Your task to perform on an android device: See recent photos Image 0: 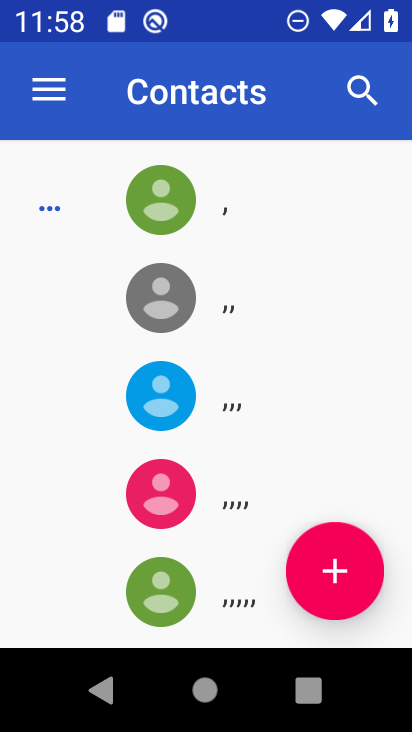
Step 0: press home button
Your task to perform on an android device: See recent photos Image 1: 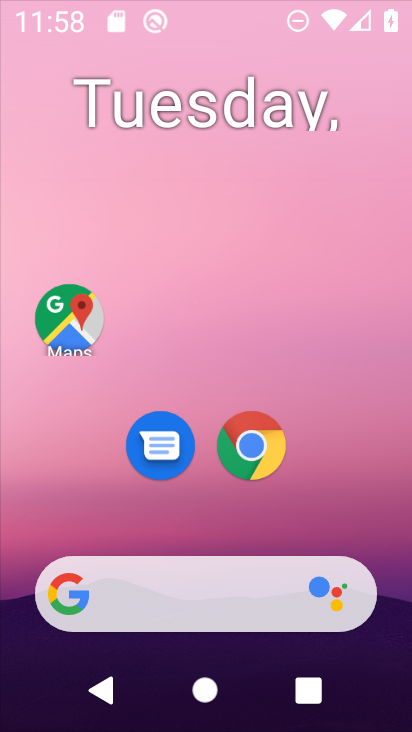
Step 1: drag from (392, 641) to (137, 0)
Your task to perform on an android device: See recent photos Image 2: 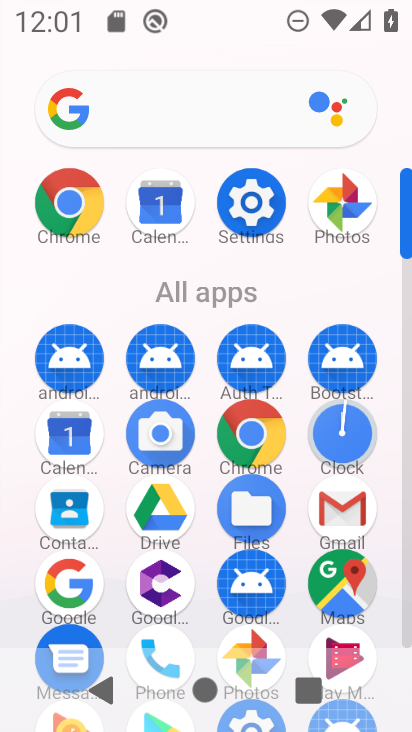
Step 2: click (327, 215)
Your task to perform on an android device: See recent photos Image 3: 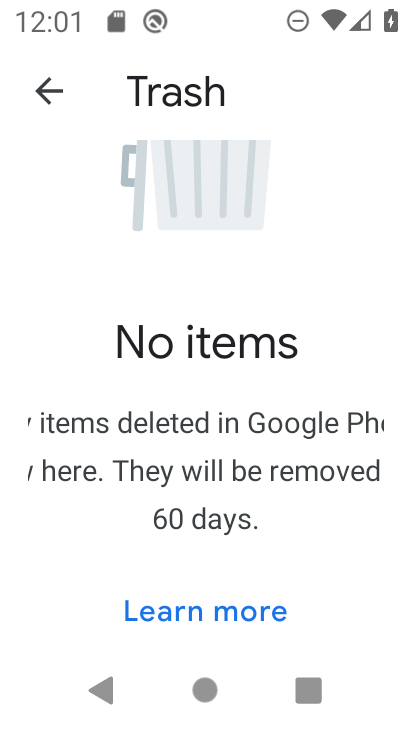
Step 3: press back button
Your task to perform on an android device: See recent photos Image 4: 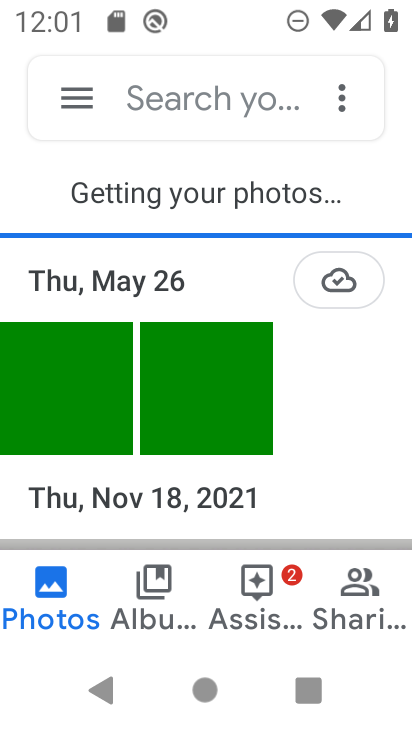
Step 4: click (68, 348)
Your task to perform on an android device: See recent photos Image 5: 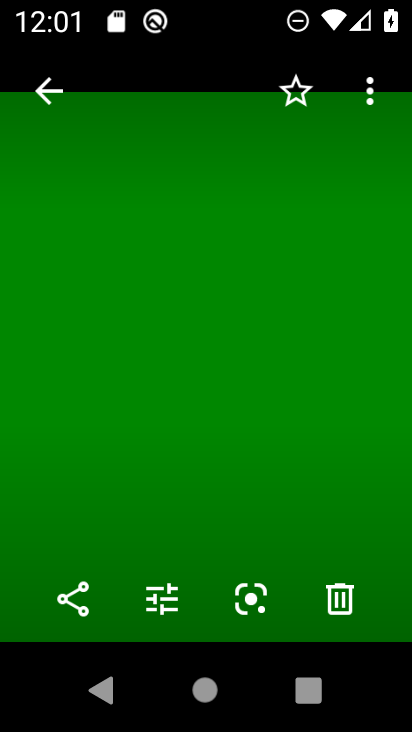
Step 5: task complete